Your task to perform on an android device: turn on airplane mode Image 0: 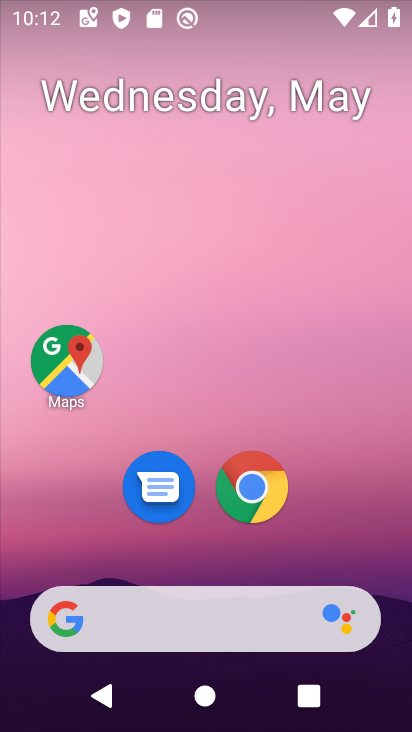
Step 0: drag from (199, 605) to (154, 7)
Your task to perform on an android device: turn on airplane mode Image 1: 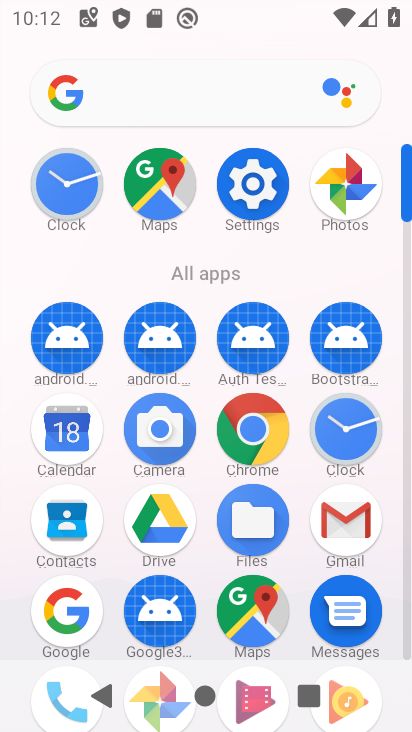
Step 1: click (359, 460)
Your task to perform on an android device: turn on airplane mode Image 2: 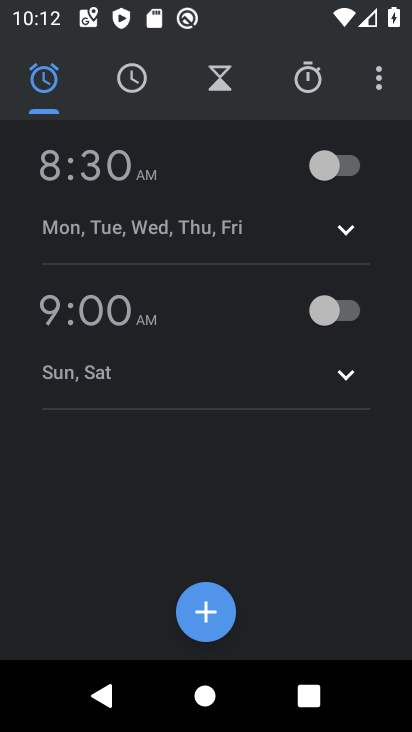
Step 2: press home button
Your task to perform on an android device: turn on airplane mode Image 3: 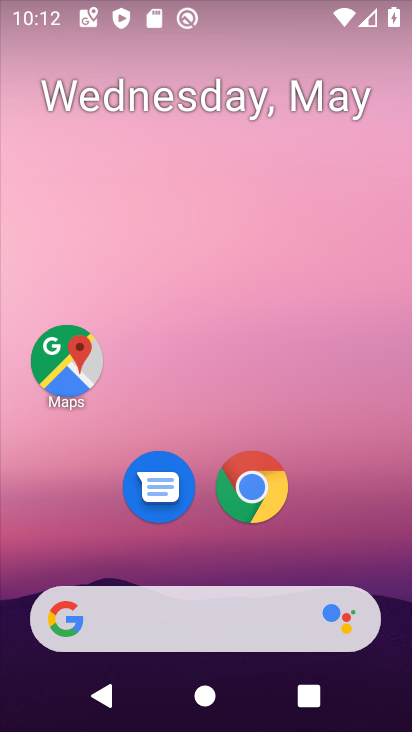
Step 3: drag from (184, 572) to (286, 0)
Your task to perform on an android device: turn on airplane mode Image 4: 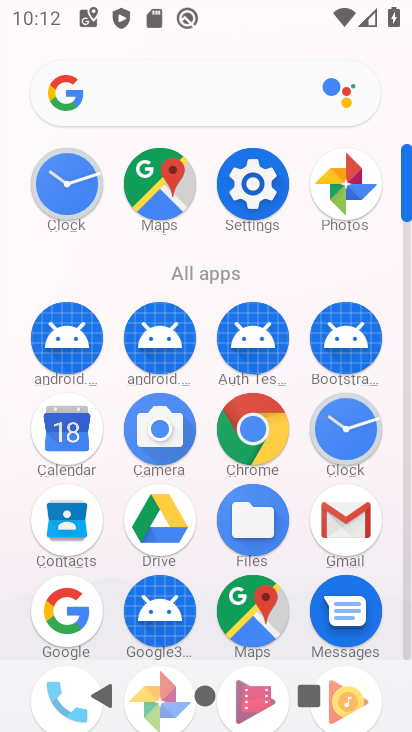
Step 4: click (246, 185)
Your task to perform on an android device: turn on airplane mode Image 5: 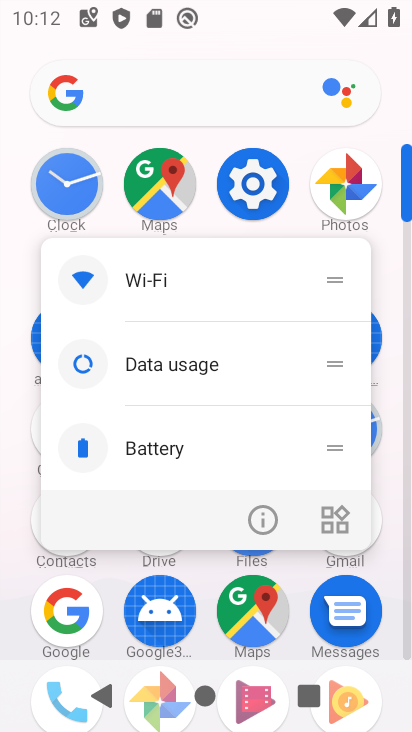
Step 5: click (247, 185)
Your task to perform on an android device: turn on airplane mode Image 6: 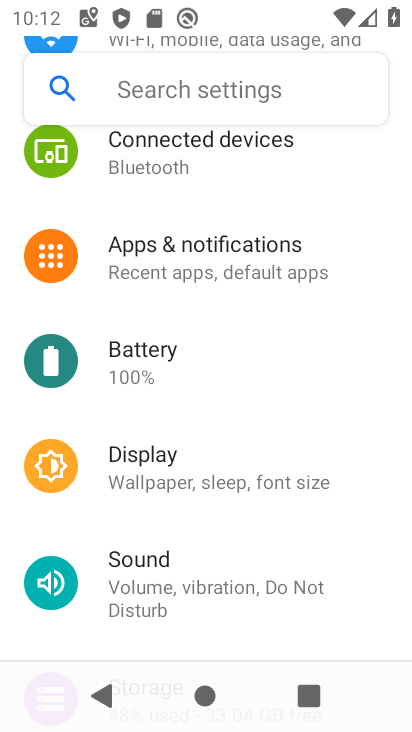
Step 6: drag from (247, 185) to (277, 662)
Your task to perform on an android device: turn on airplane mode Image 7: 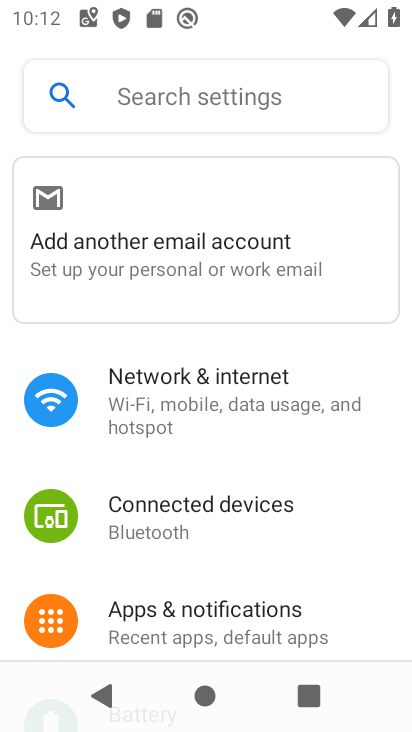
Step 7: click (181, 403)
Your task to perform on an android device: turn on airplane mode Image 8: 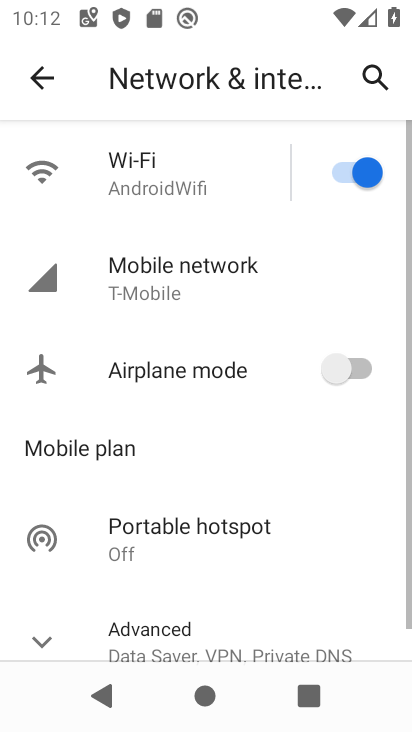
Step 8: drag from (216, 375) to (199, 114)
Your task to perform on an android device: turn on airplane mode Image 9: 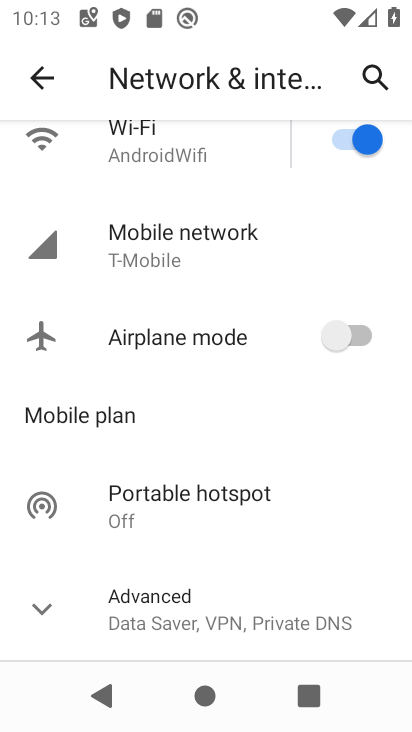
Step 9: click (357, 337)
Your task to perform on an android device: turn on airplane mode Image 10: 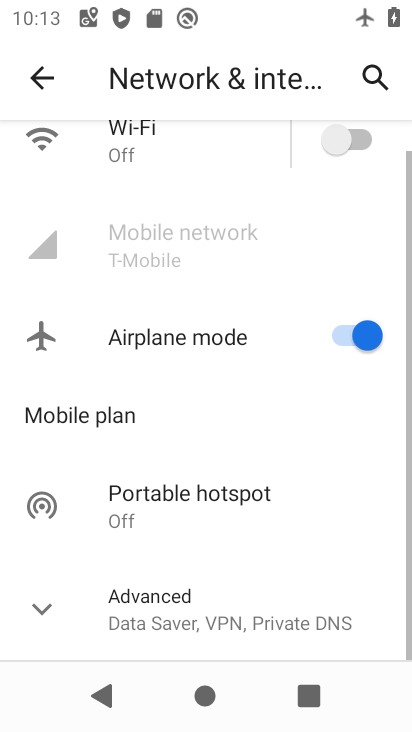
Step 10: task complete